Your task to perform on an android device: Open Maps and search for coffee Image 0: 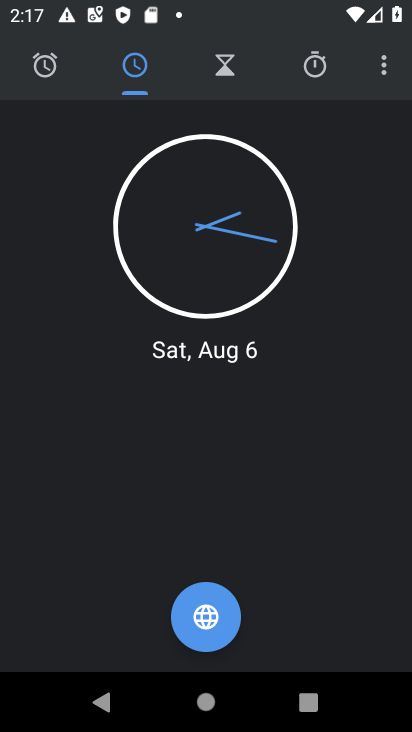
Step 0: press home button
Your task to perform on an android device: Open Maps and search for coffee Image 1: 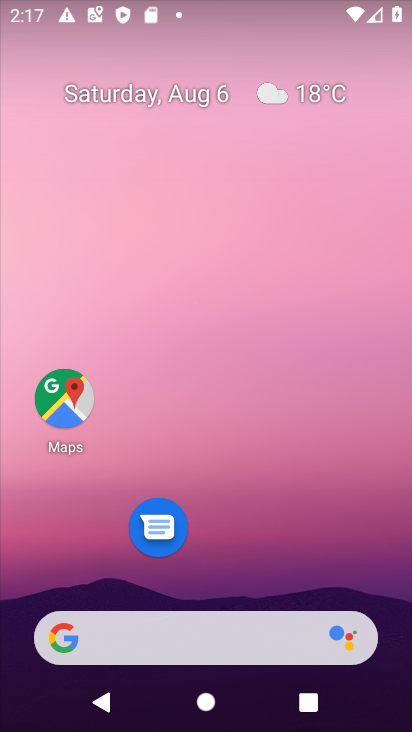
Step 1: drag from (254, 559) to (174, 63)
Your task to perform on an android device: Open Maps and search for coffee Image 2: 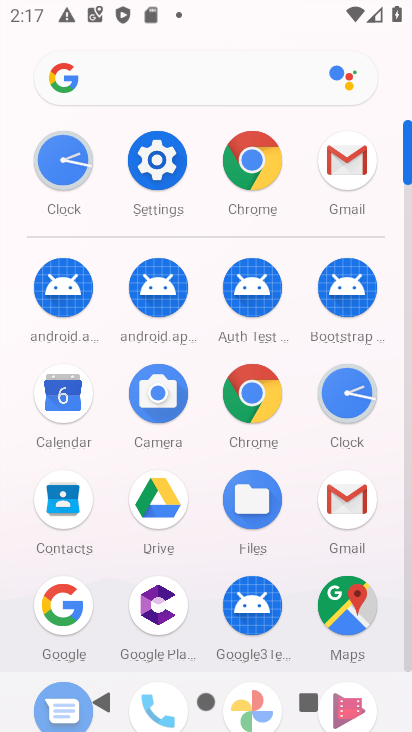
Step 2: click (341, 608)
Your task to perform on an android device: Open Maps and search for coffee Image 3: 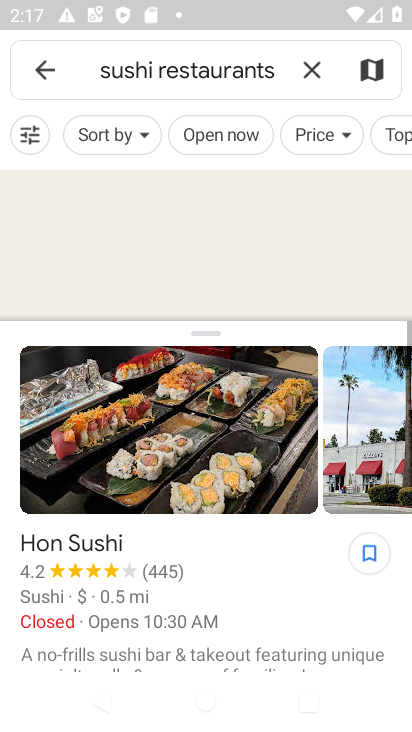
Step 3: click (316, 64)
Your task to perform on an android device: Open Maps and search for coffee Image 4: 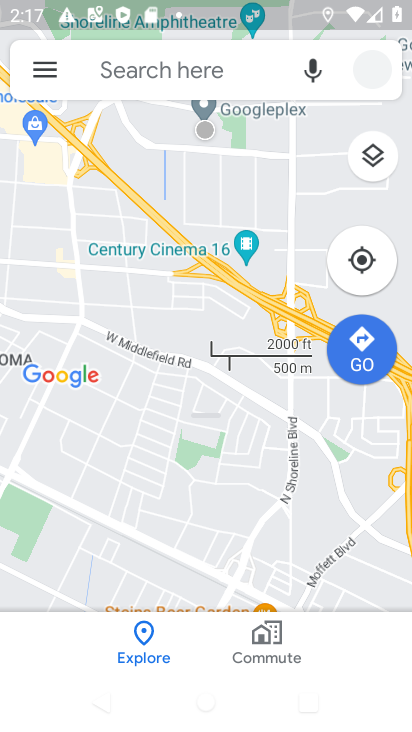
Step 4: click (311, 71)
Your task to perform on an android device: Open Maps and search for coffee Image 5: 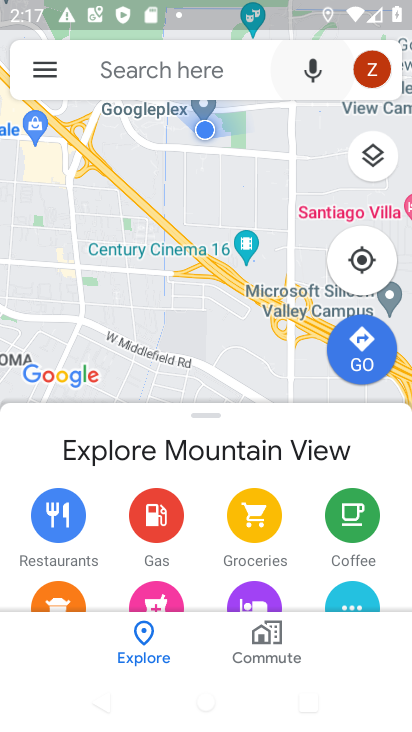
Step 5: click (198, 74)
Your task to perform on an android device: Open Maps and search for coffee Image 6: 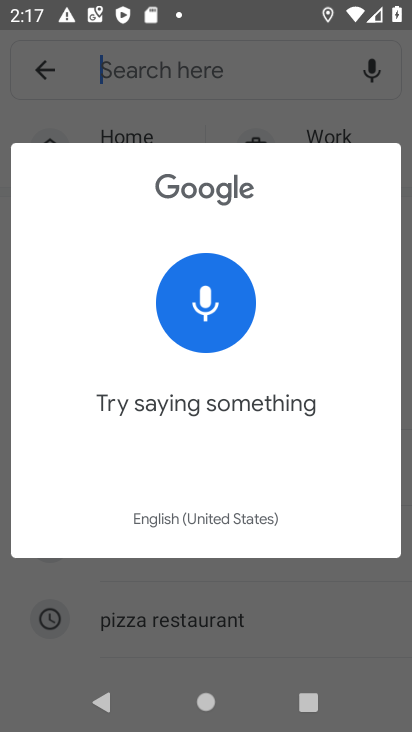
Step 6: type "coffee"
Your task to perform on an android device: Open Maps and search for coffee Image 7: 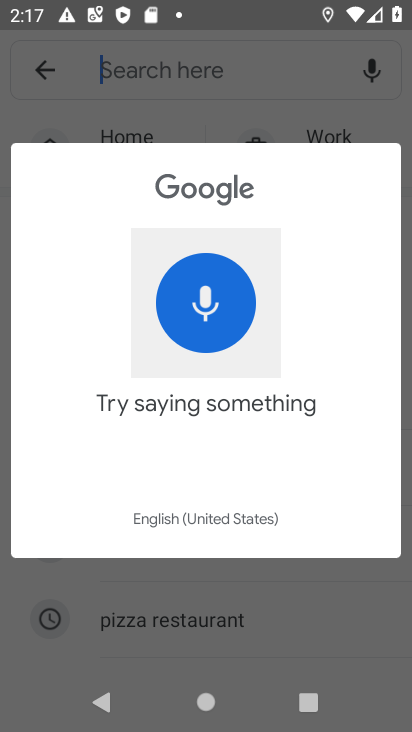
Step 7: click (259, 644)
Your task to perform on an android device: Open Maps and search for coffee Image 8: 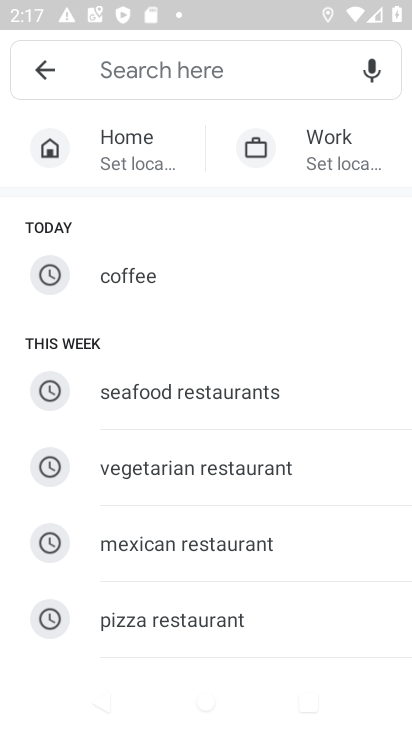
Step 8: type "coffee"
Your task to perform on an android device: Open Maps and search for coffee Image 9: 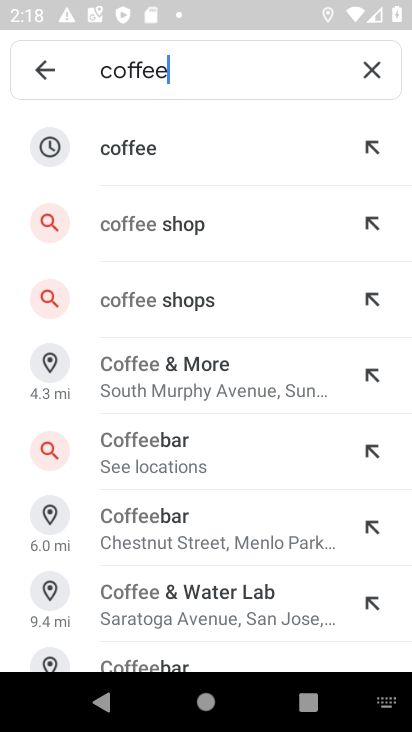
Step 9: click (153, 167)
Your task to perform on an android device: Open Maps and search for coffee Image 10: 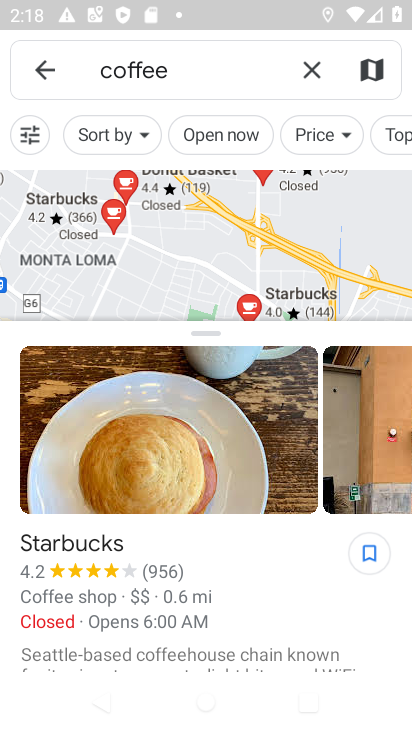
Step 10: task complete